Your task to perform on an android device: turn off javascript in the chrome app Image 0: 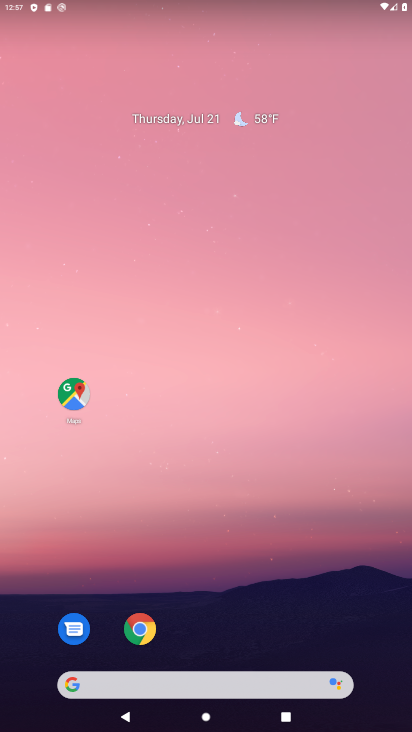
Step 0: press home button
Your task to perform on an android device: turn off javascript in the chrome app Image 1: 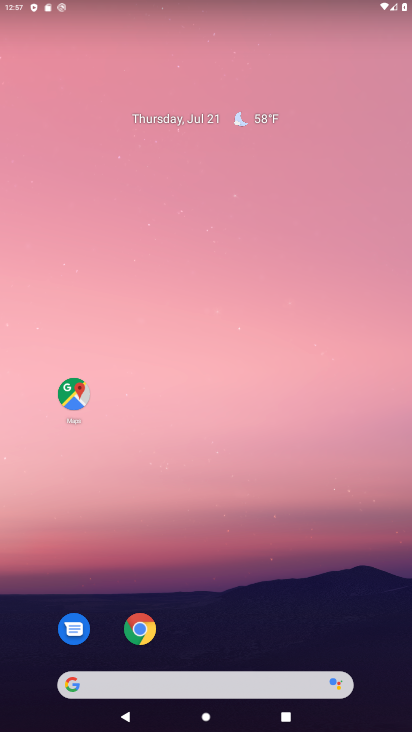
Step 1: click (141, 631)
Your task to perform on an android device: turn off javascript in the chrome app Image 2: 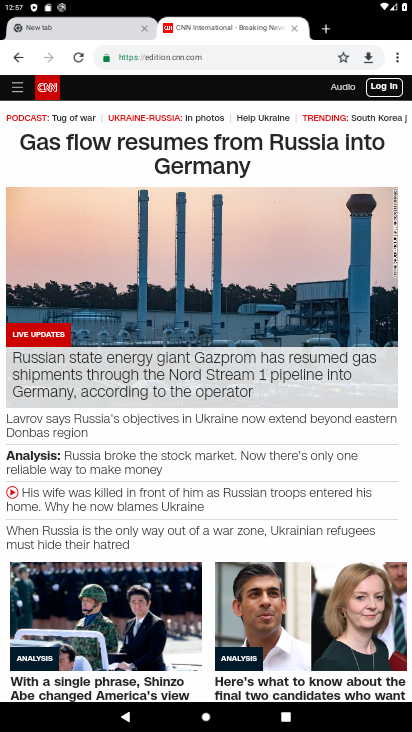
Step 2: click (396, 58)
Your task to perform on an android device: turn off javascript in the chrome app Image 3: 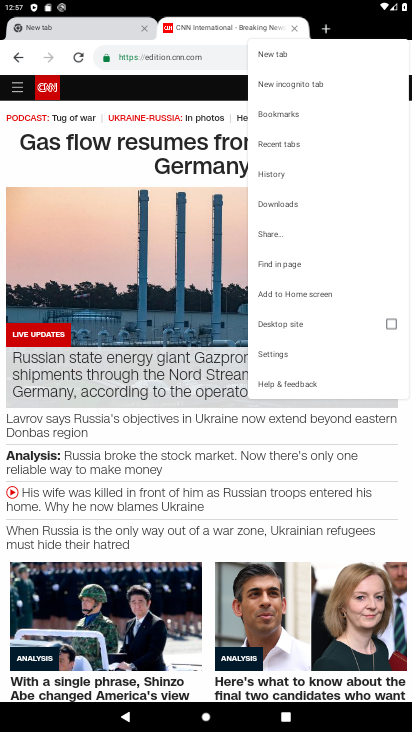
Step 3: click (271, 352)
Your task to perform on an android device: turn off javascript in the chrome app Image 4: 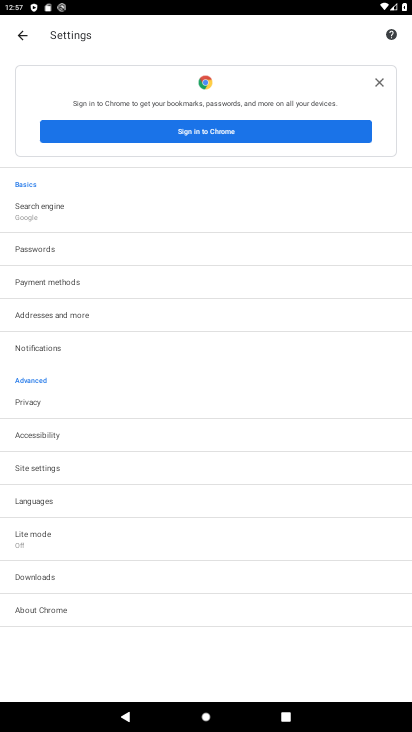
Step 4: click (35, 466)
Your task to perform on an android device: turn off javascript in the chrome app Image 5: 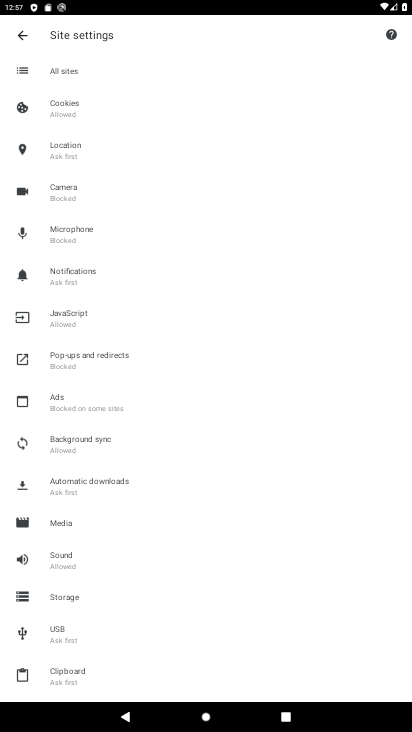
Step 5: click (75, 325)
Your task to perform on an android device: turn off javascript in the chrome app Image 6: 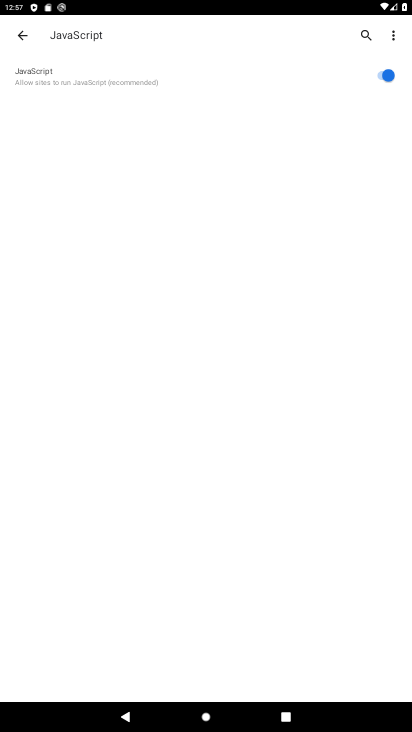
Step 6: click (384, 74)
Your task to perform on an android device: turn off javascript in the chrome app Image 7: 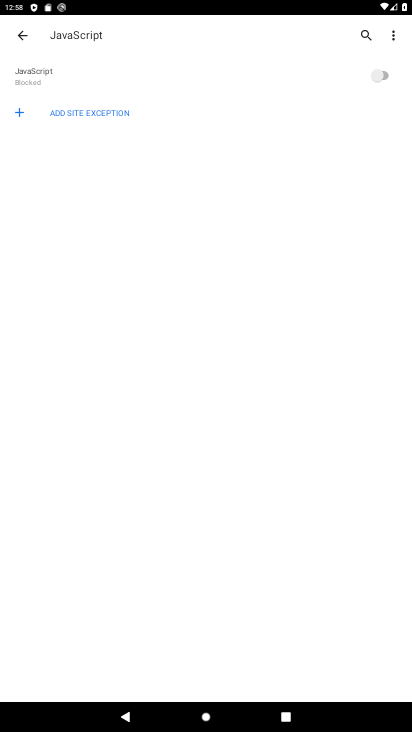
Step 7: task complete